Your task to perform on an android device: View the shopping cart on ebay.com. Add "asus rog" to the cart on ebay.com Image 0: 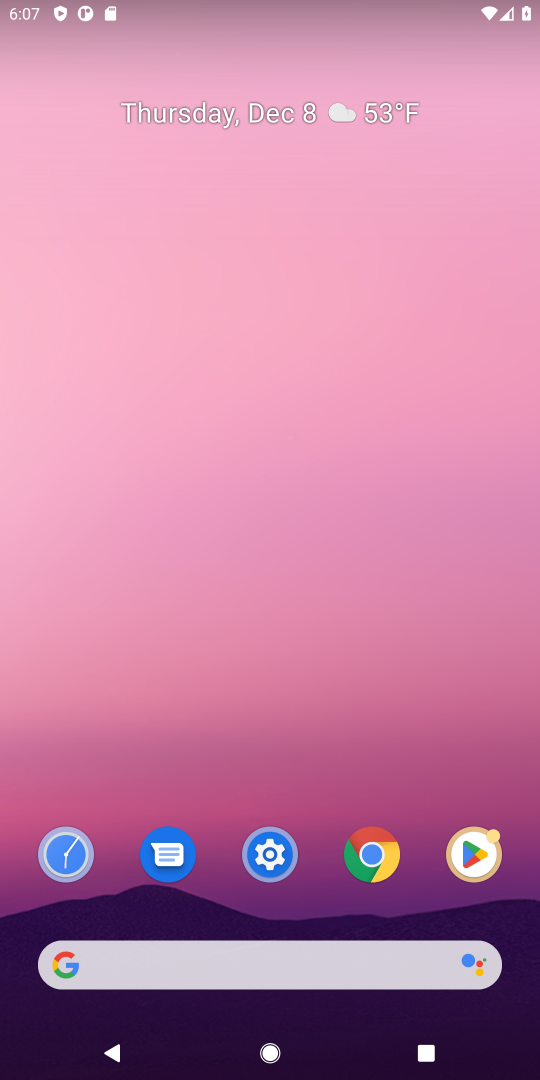
Step 0: click (105, 966)
Your task to perform on an android device: View the shopping cart on ebay.com. Add "asus rog" to the cart on ebay.com Image 1: 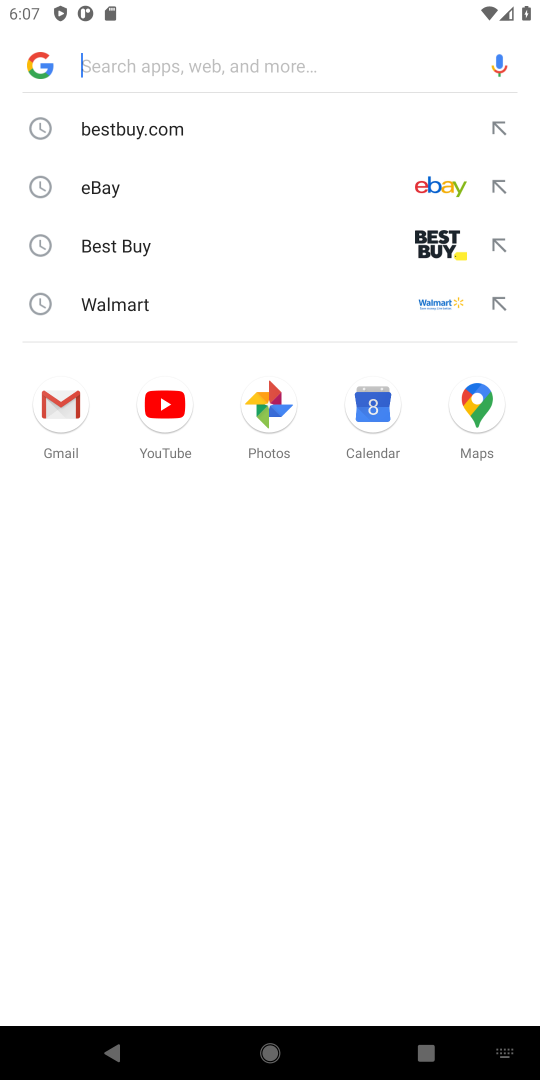
Step 1: type "ebay.com"
Your task to perform on an android device: View the shopping cart on ebay.com. Add "asus rog" to the cart on ebay.com Image 2: 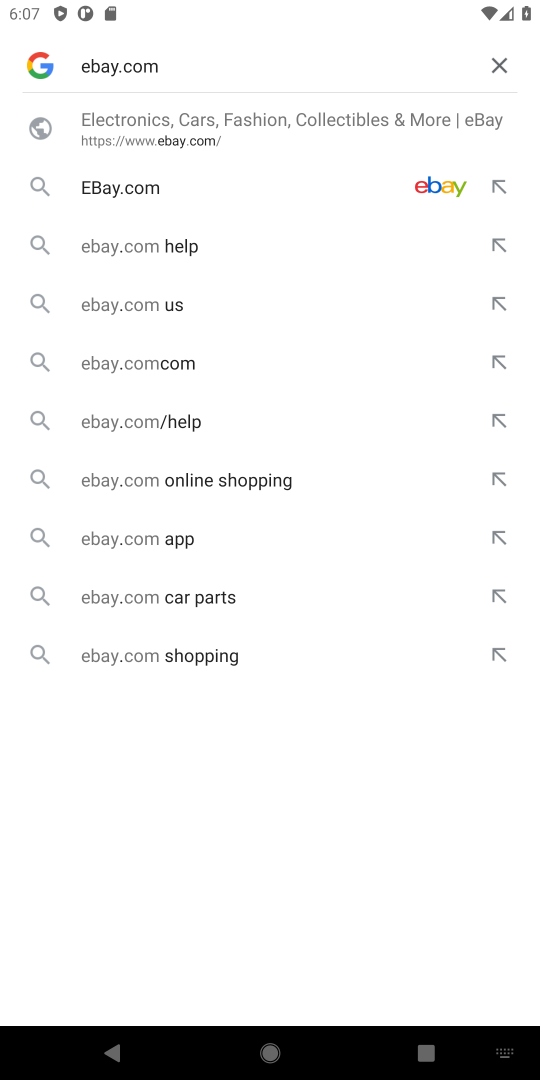
Step 2: press enter
Your task to perform on an android device: View the shopping cart on ebay.com. Add "asus rog" to the cart on ebay.com Image 3: 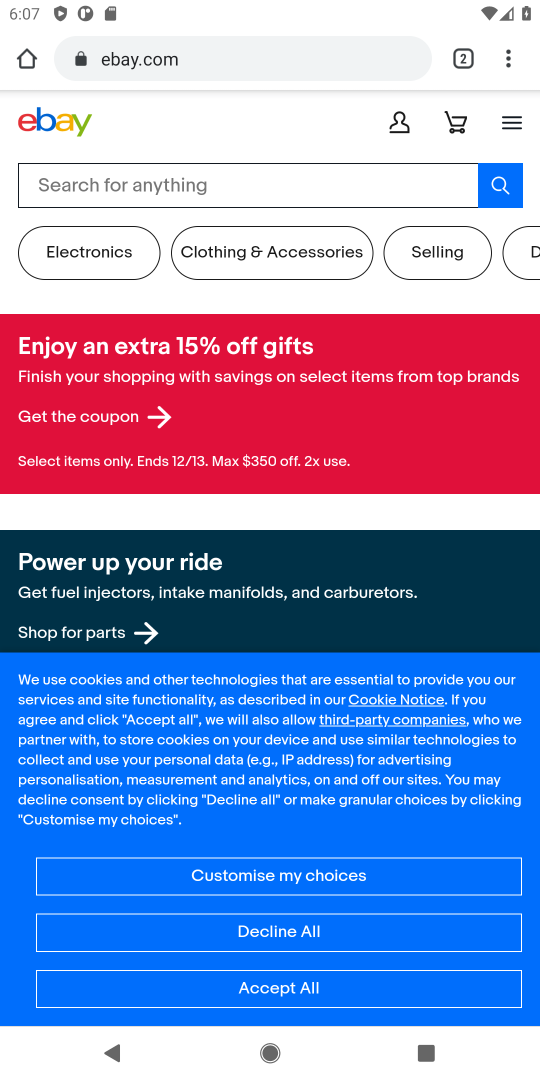
Step 3: click (445, 120)
Your task to perform on an android device: View the shopping cart on ebay.com. Add "asus rog" to the cart on ebay.com Image 4: 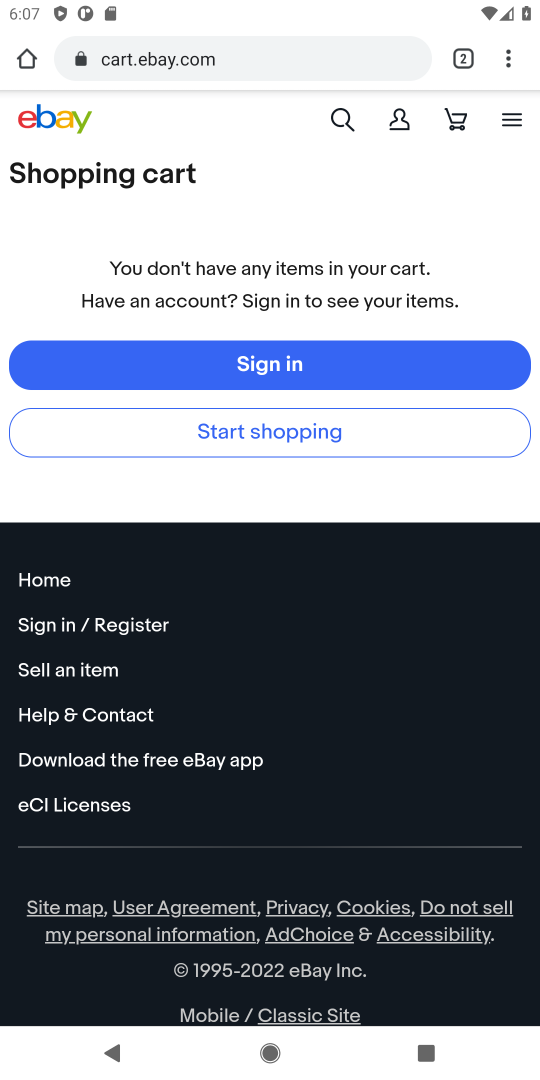
Step 4: click (340, 119)
Your task to perform on an android device: View the shopping cart on ebay.com. Add "asus rog" to the cart on ebay.com Image 5: 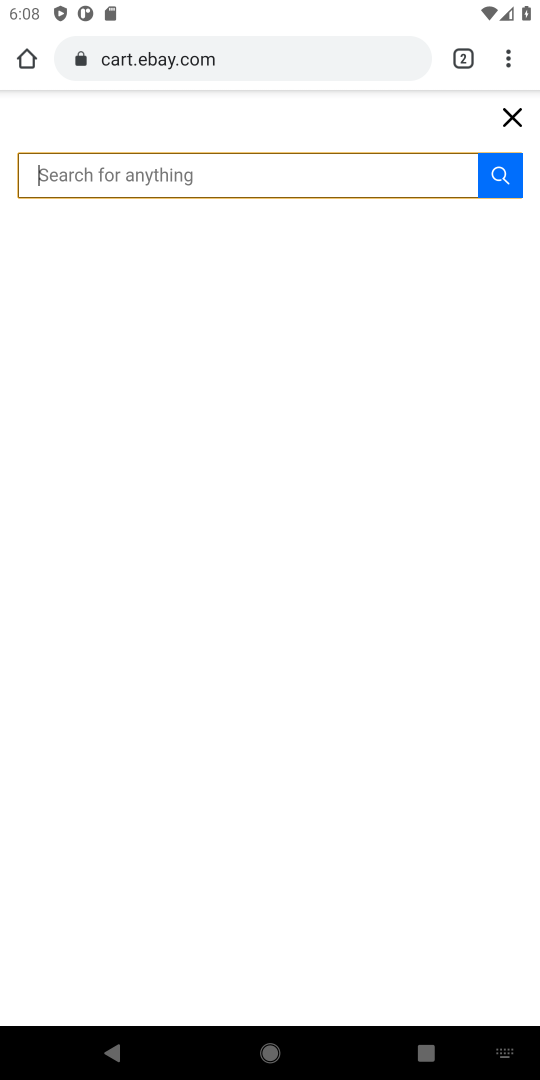
Step 5: type "asus rog"
Your task to perform on an android device: View the shopping cart on ebay.com. Add "asus rog" to the cart on ebay.com Image 6: 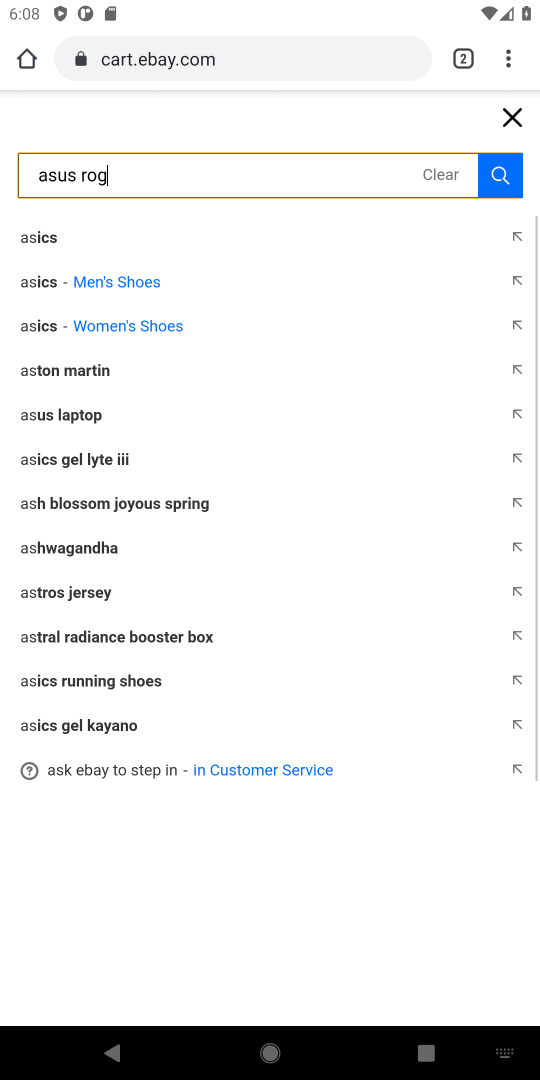
Step 6: press enter
Your task to perform on an android device: View the shopping cart on ebay.com. Add "asus rog" to the cart on ebay.com Image 7: 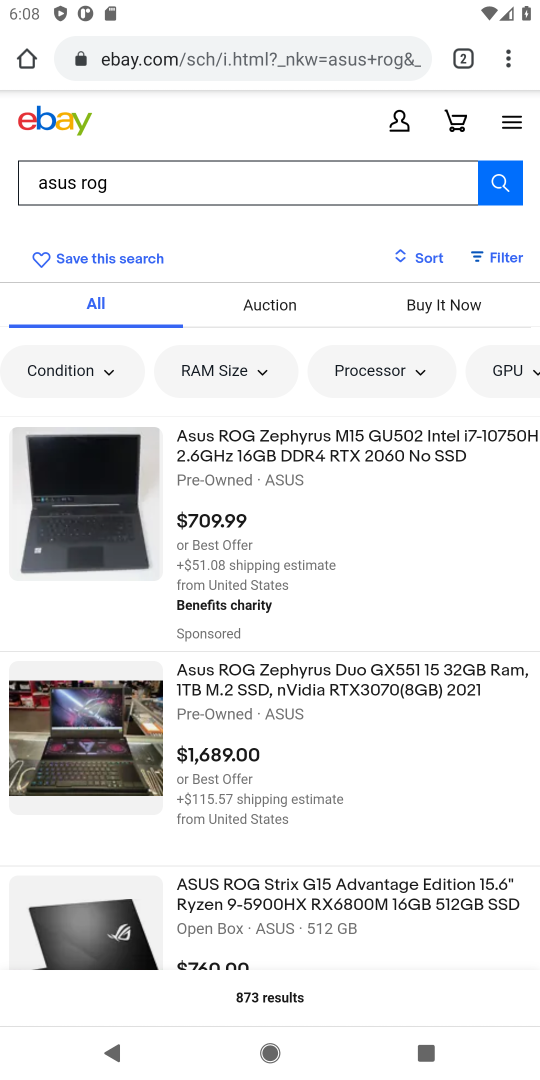
Step 7: click (287, 452)
Your task to perform on an android device: View the shopping cart on ebay.com. Add "asus rog" to the cart on ebay.com Image 8: 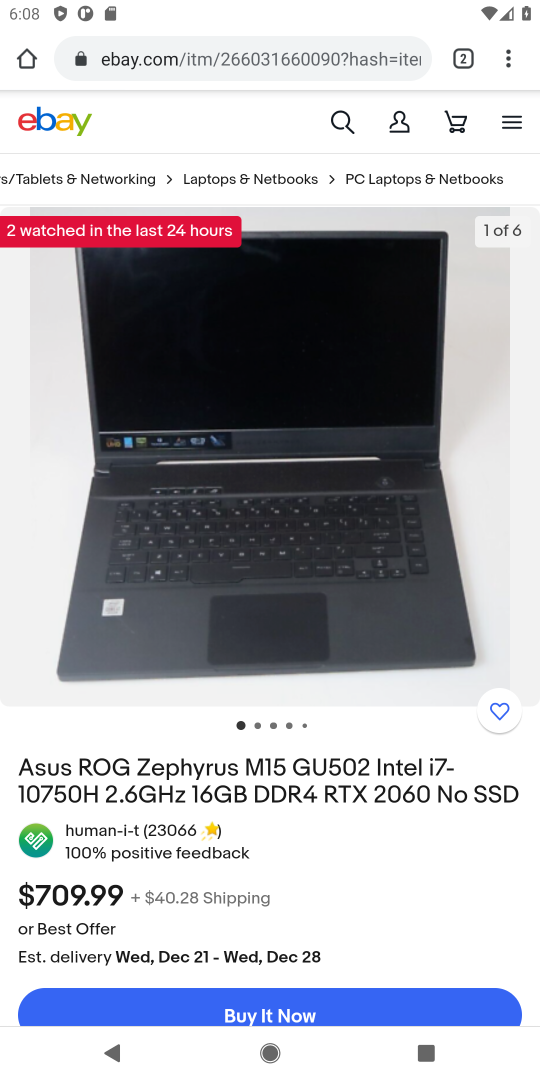
Step 8: drag from (305, 891) to (313, 558)
Your task to perform on an android device: View the shopping cart on ebay.com. Add "asus rog" to the cart on ebay.com Image 9: 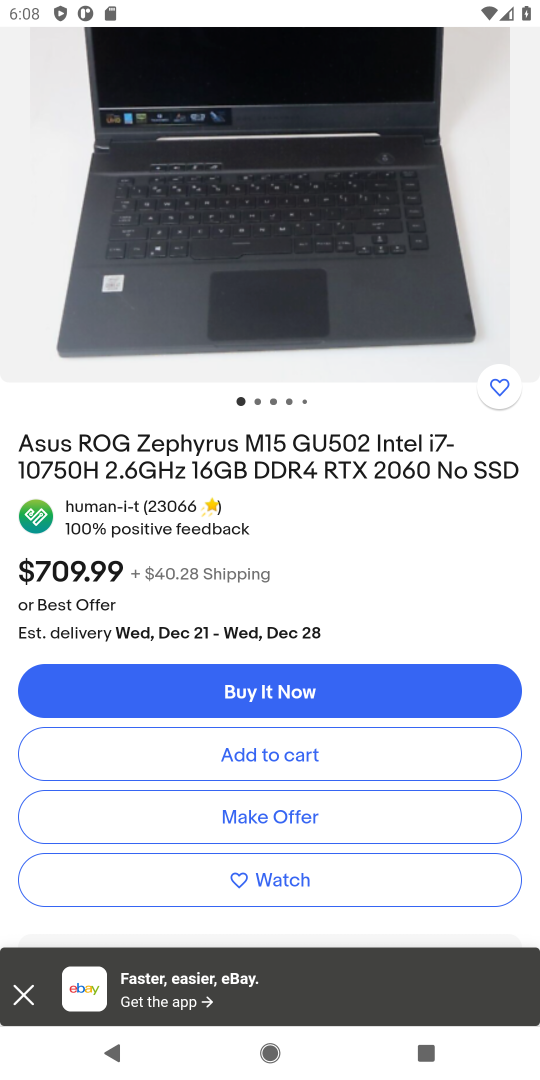
Step 9: click (299, 761)
Your task to perform on an android device: View the shopping cart on ebay.com. Add "asus rog" to the cart on ebay.com Image 10: 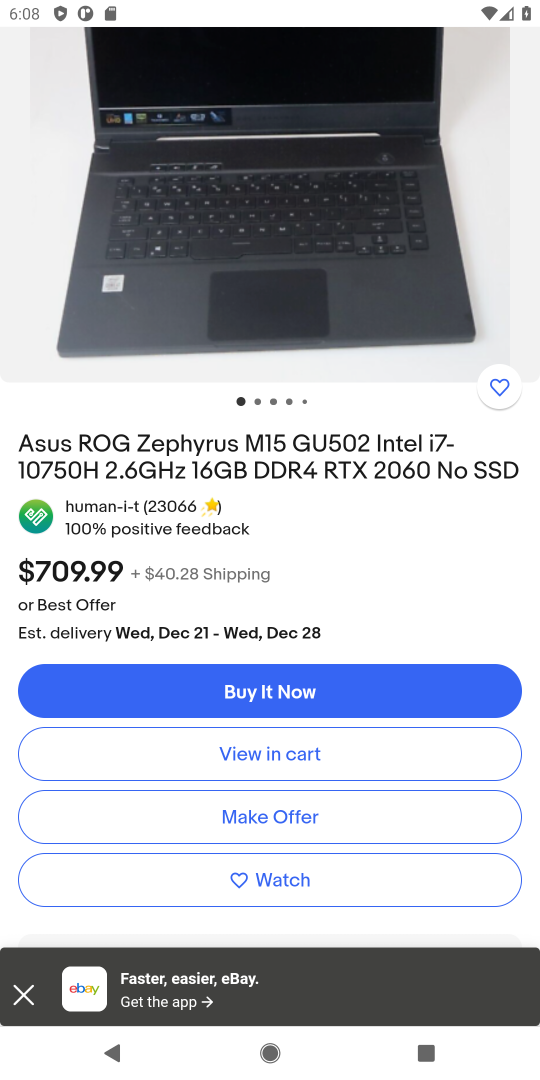
Step 10: task complete